Your task to perform on an android device: show emergency info Image 0: 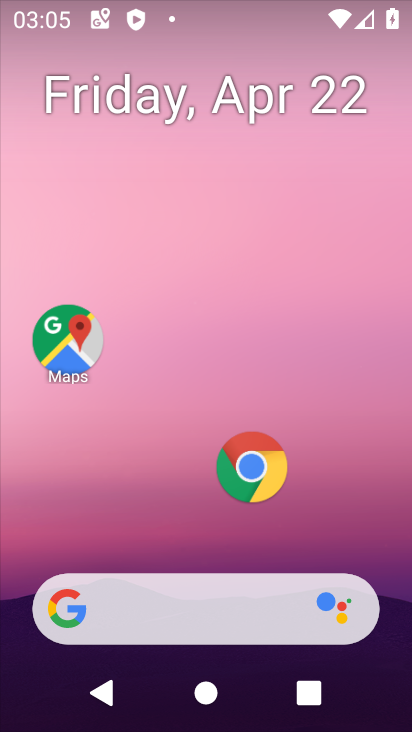
Step 0: drag from (184, 554) to (205, 177)
Your task to perform on an android device: show emergency info Image 1: 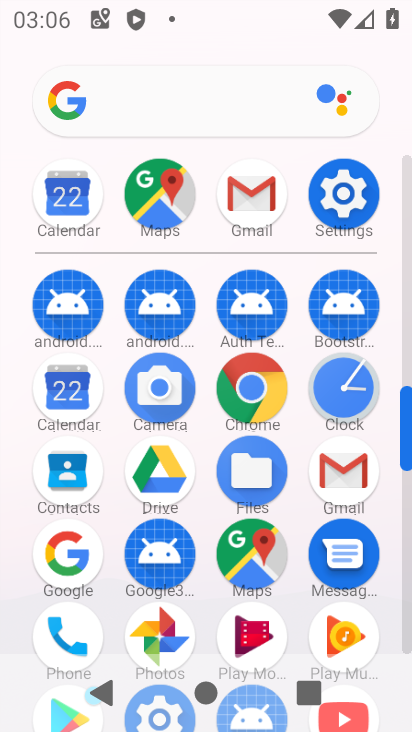
Step 1: click (335, 191)
Your task to perform on an android device: show emergency info Image 2: 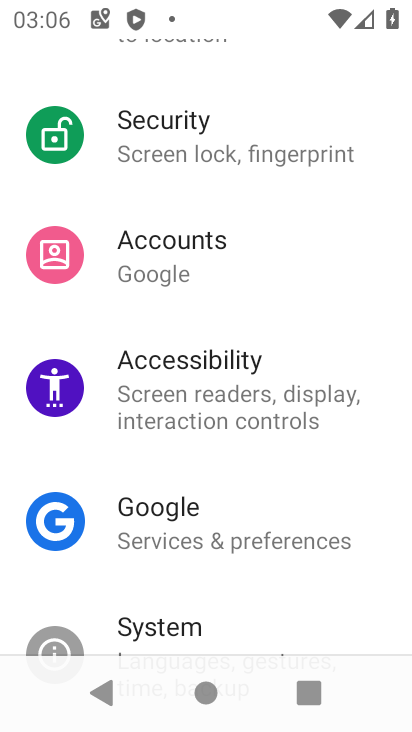
Step 2: drag from (200, 588) to (241, 218)
Your task to perform on an android device: show emergency info Image 3: 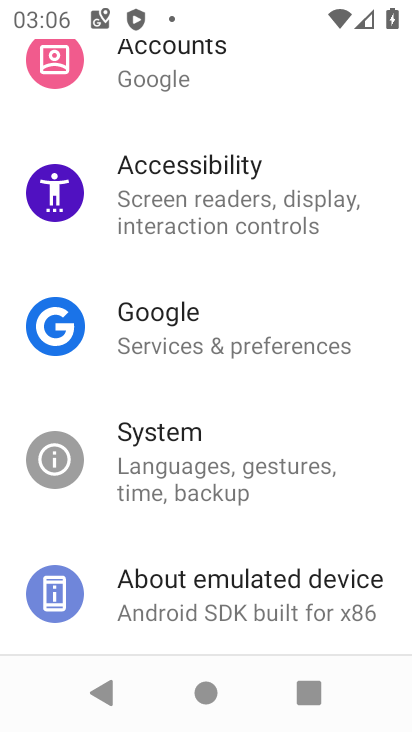
Step 3: click (205, 584)
Your task to perform on an android device: show emergency info Image 4: 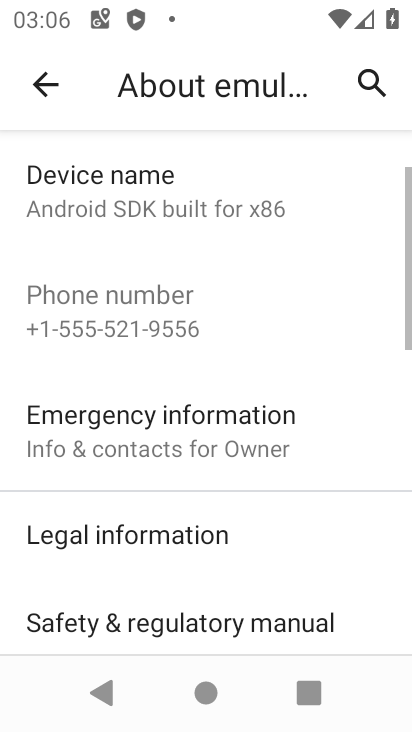
Step 4: click (201, 424)
Your task to perform on an android device: show emergency info Image 5: 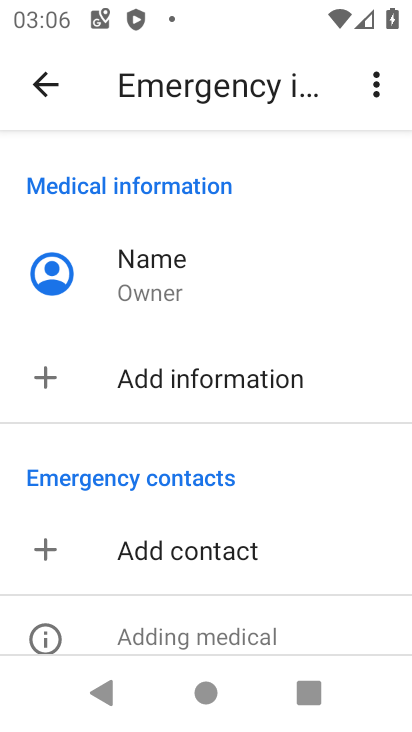
Step 5: task complete